Your task to perform on an android device: see sites visited before in the chrome app Image 0: 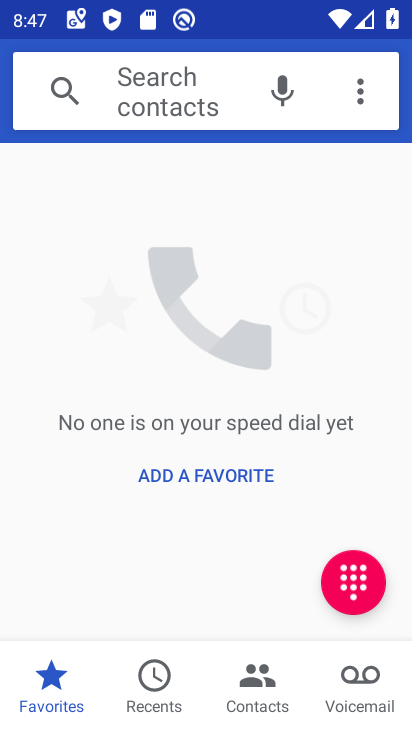
Step 0: press home button
Your task to perform on an android device: see sites visited before in the chrome app Image 1: 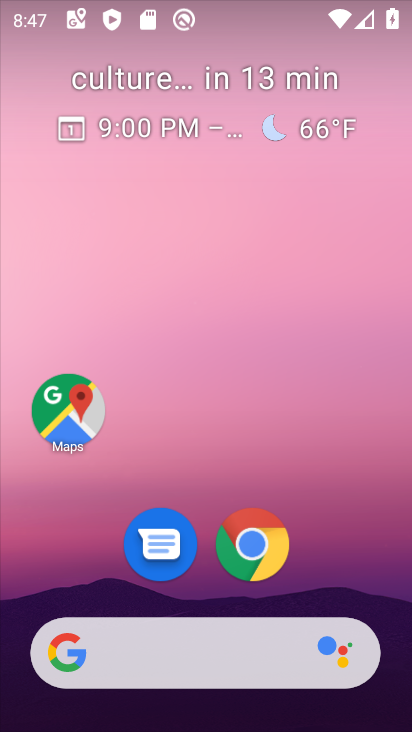
Step 1: drag from (196, 537) to (242, 95)
Your task to perform on an android device: see sites visited before in the chrome app Image 2: 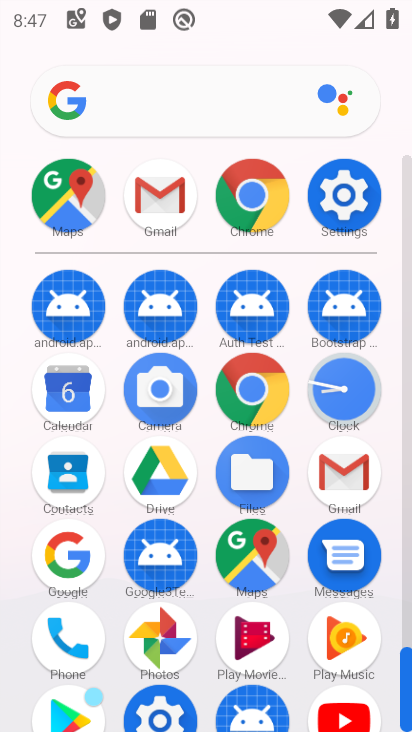
Step 2: click (251, 198)
Your task to perform on an android device: see sites visited before in the chrome app Image 3: 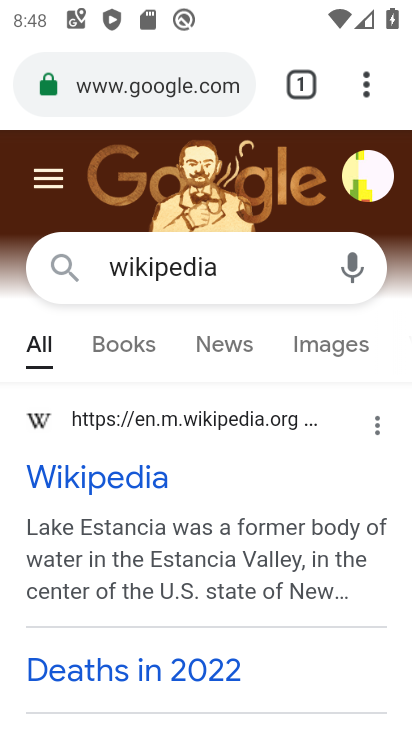
Step 3: click (368, 84)
Your task to perform on an android device: see sites visited before in the chrome app Image 4: 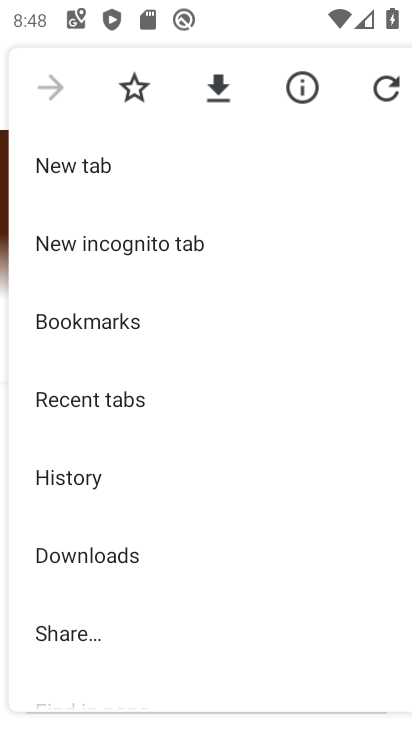
Step 4: click (141, 389)
Your task to perform on an android device: see sites visited before in the chrome app Image 5: 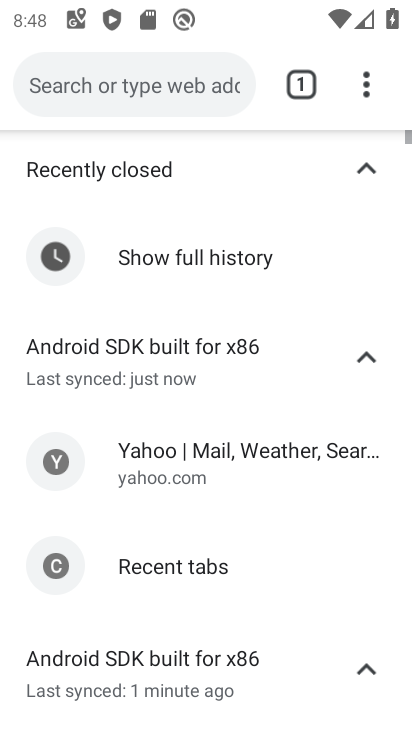
Step 5: task complete